Your task to perform on an android device: Go to battery settings Image 0: 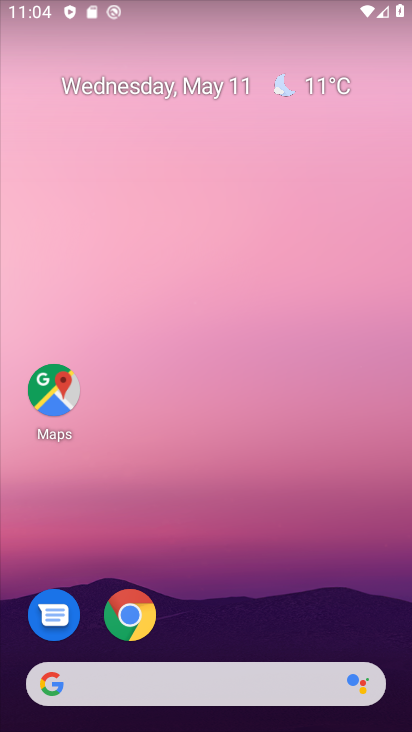
Step 0: drag from (177, 590) to (292, 79)
Your task to perform on an android device: Go to battery settings Image 1: 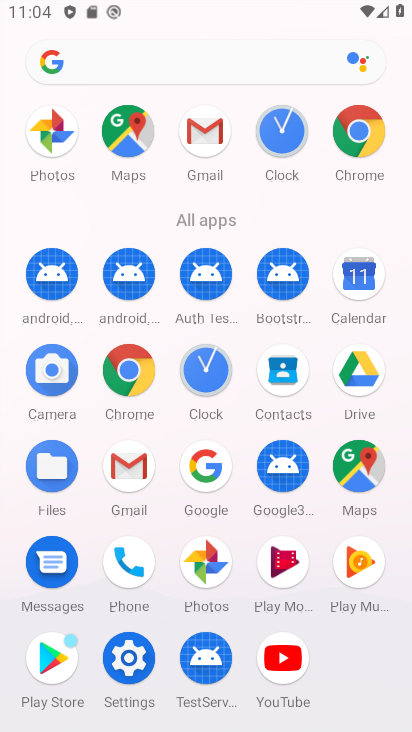
Step 1: drag from (168, 548) to (216, 339)
Your task to perform on an android device: Go to battery settings Image 2: 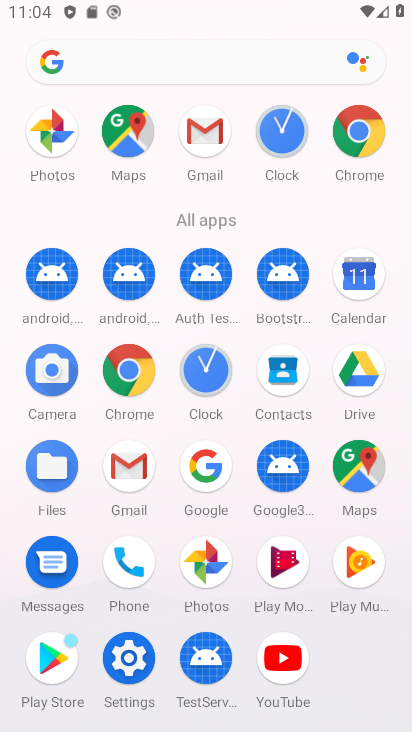
Step 2: click (137, 668)
Your task to perform on an android device: Go to battery settings Image 3: 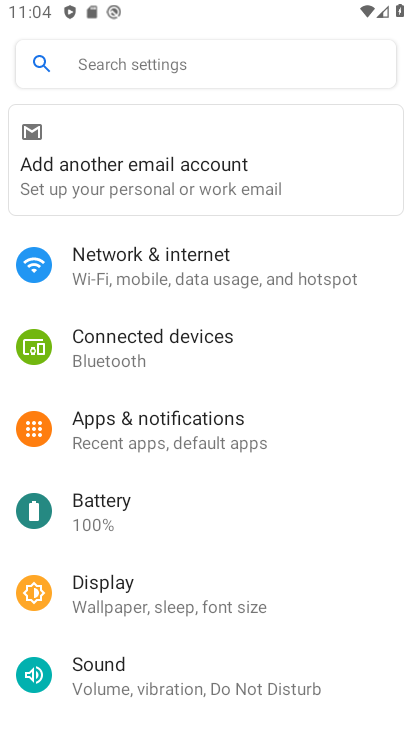
Step 3: drag from (159, 620) to (230, 372)
Your task to perform on an android device: Go to battery settings Image 4: 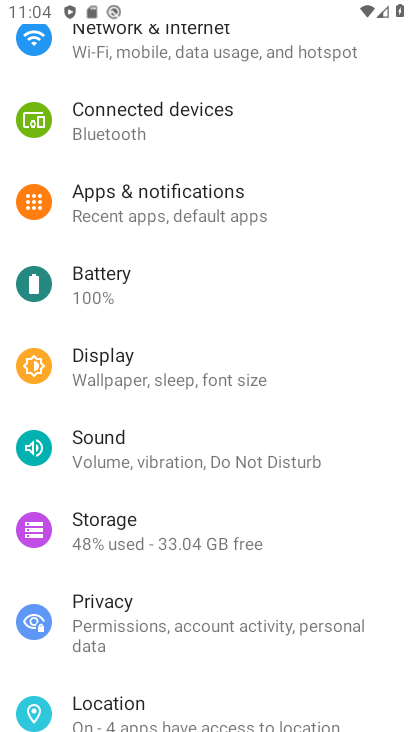
Step 4: click (162, 297)
Your task to perform on an android device: Go to battery settings Image 5: 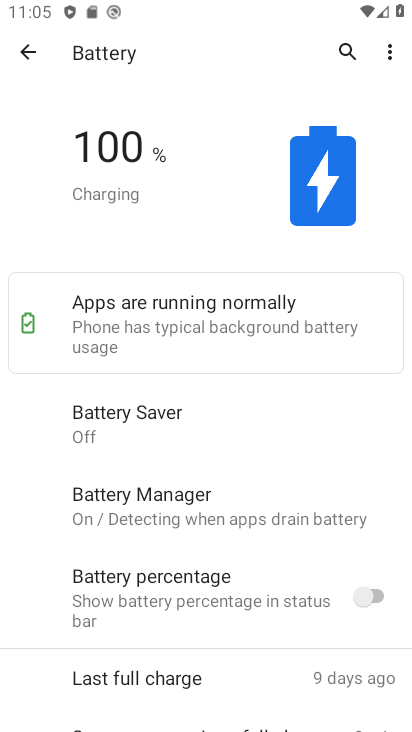
Step 5: task complete